Your task to perform on an android device: open app "Yahoo Mail" Image 0: 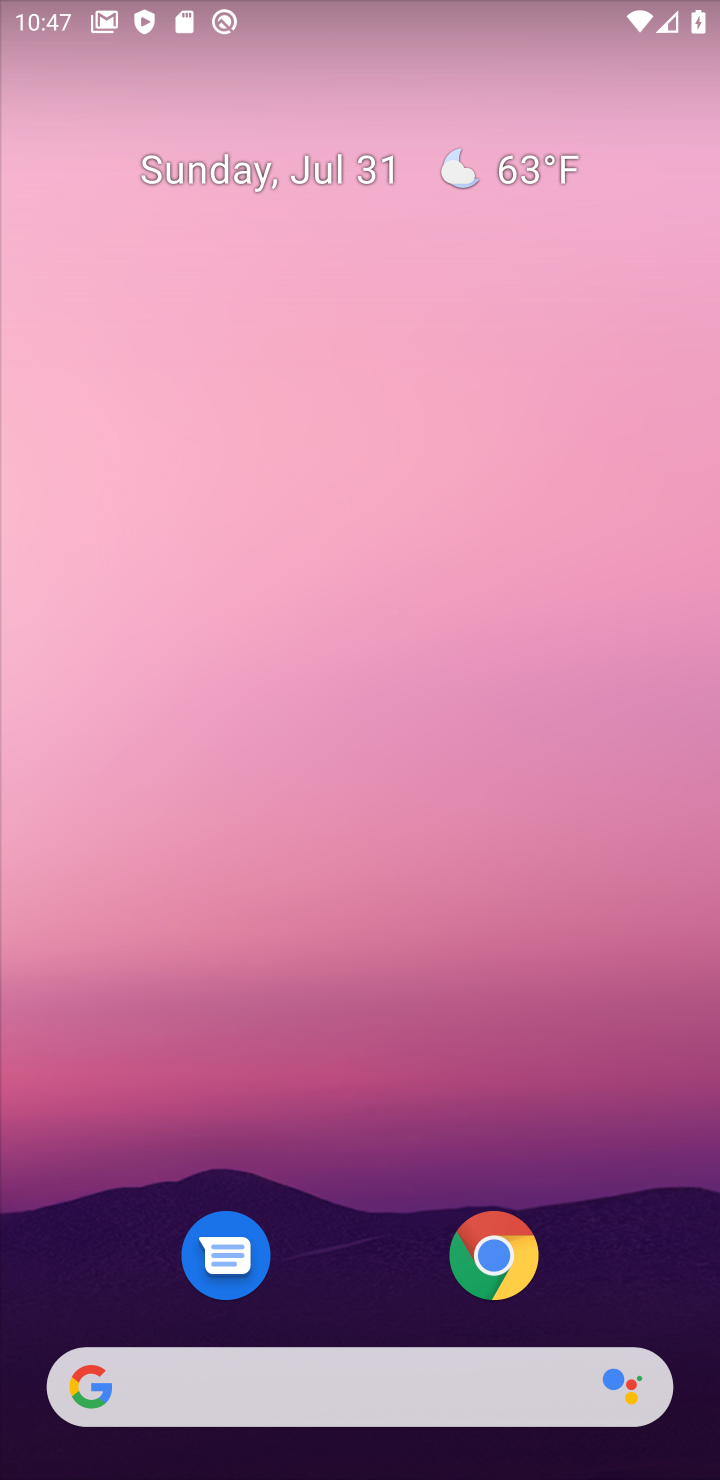
Step 0: drag from (425, 1328) to (273, 183)
Your task to perform on an android device: open app "Yahoo Mail" Image 1: 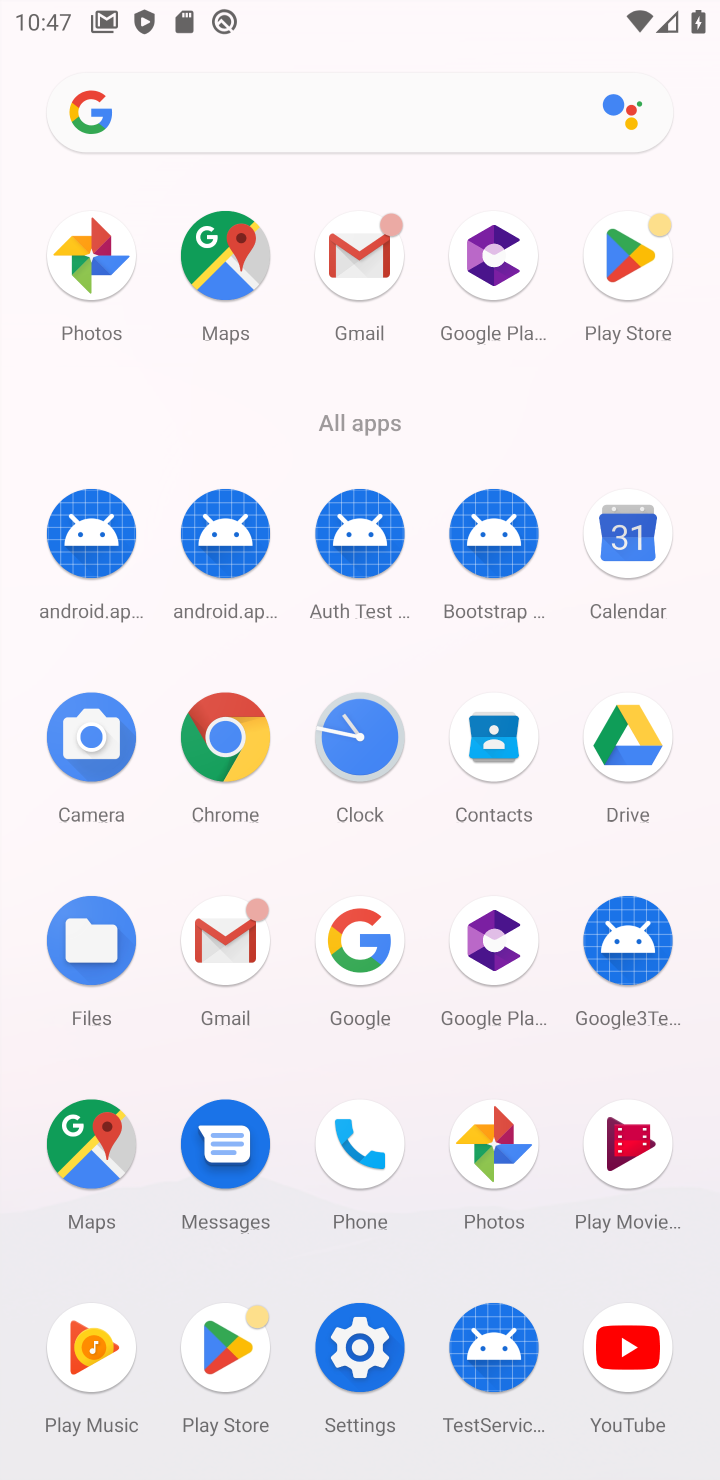
Step 1: click (223, 1355)
Your task to perform on an android device: open app "Yahoo Mail" Image 2: 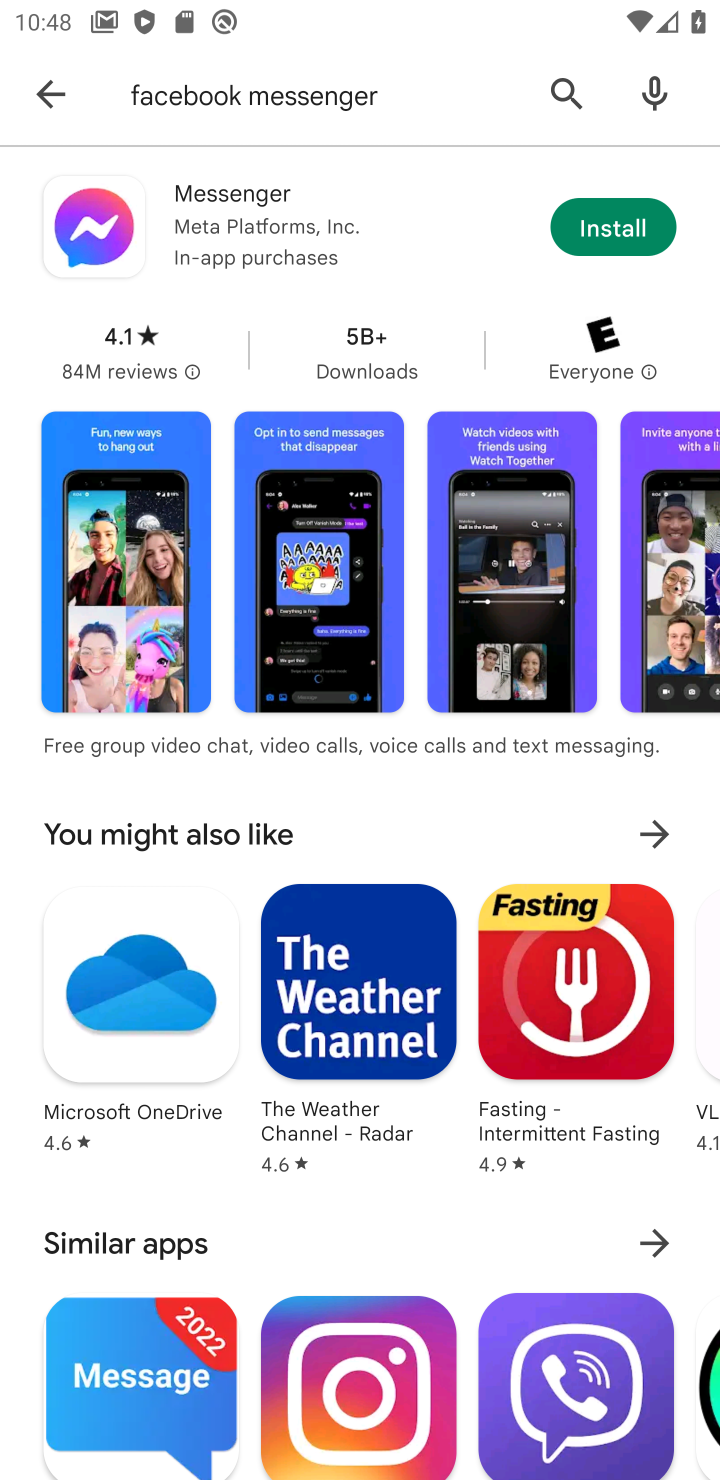
Step 2: click (64, 96)
Your task to perform on an android device: open app "Yahoo Mail" Image 3: 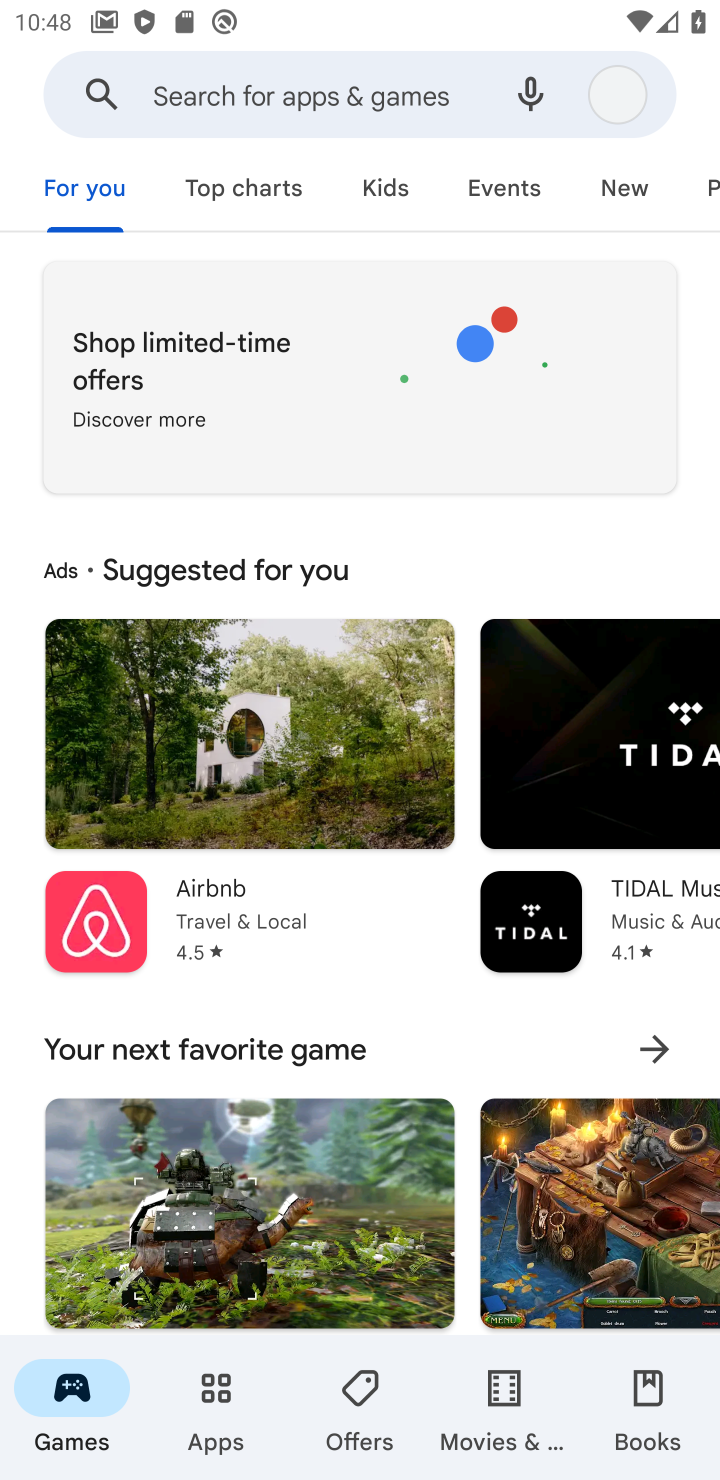
Step 3: click (410, 110)
Your task to perform on an android device: open app "Yahoo Mail" Image 4: 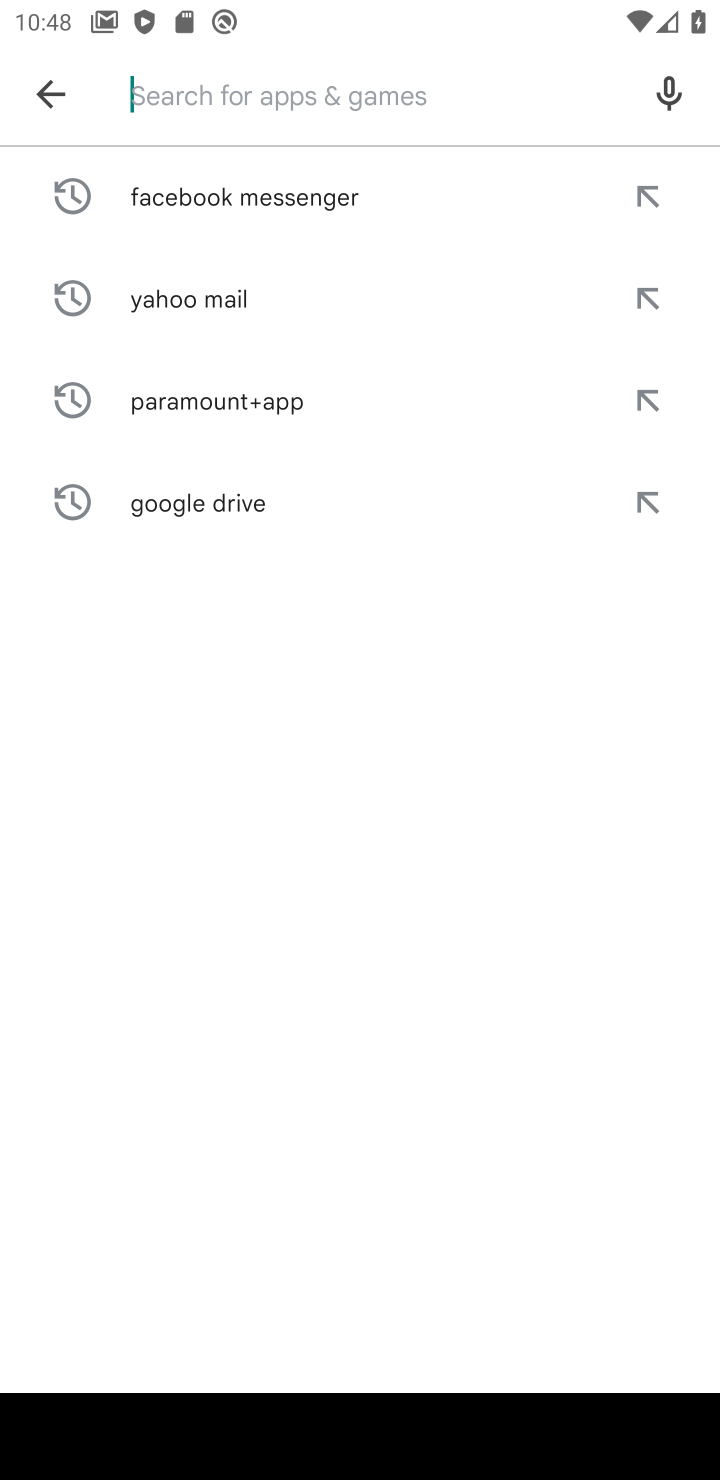
Step 4: click (195, 303)
Your task to perform on an android device: open app "Yahoo Mail" Image 5: 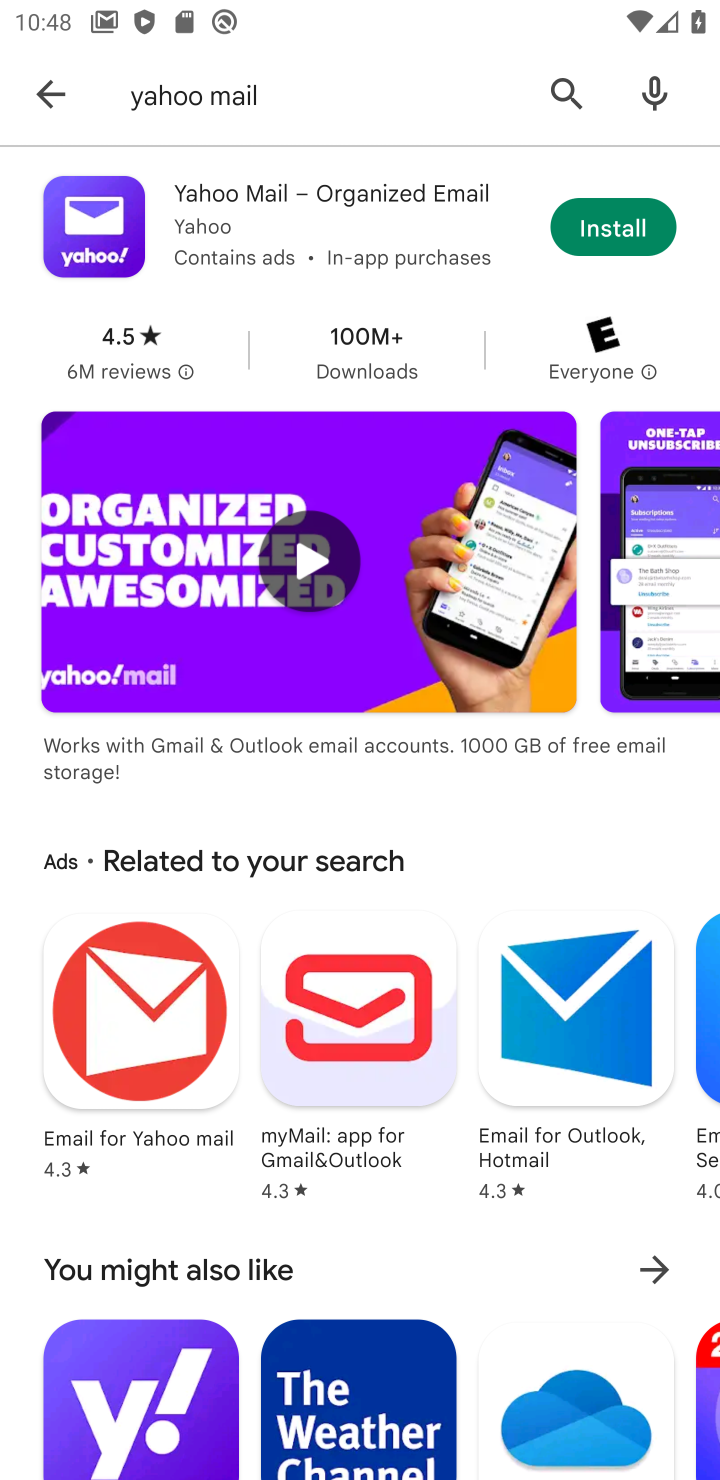
Step 5: click (401, 240)
Your task to perform on an android device: open app "Yahoo Mail" Image 6: 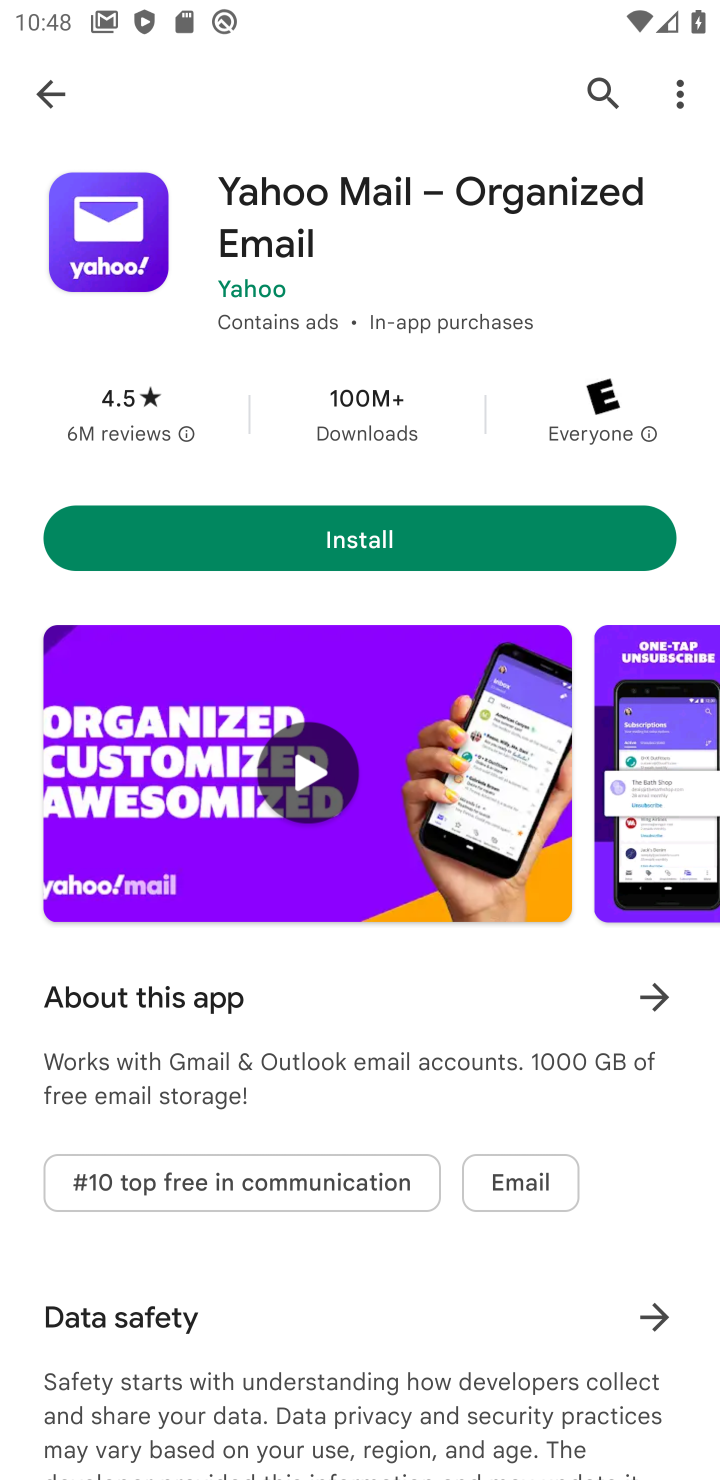
Step 6: task complete